Your task to perform on an android device: toggle notification dots Image 0: 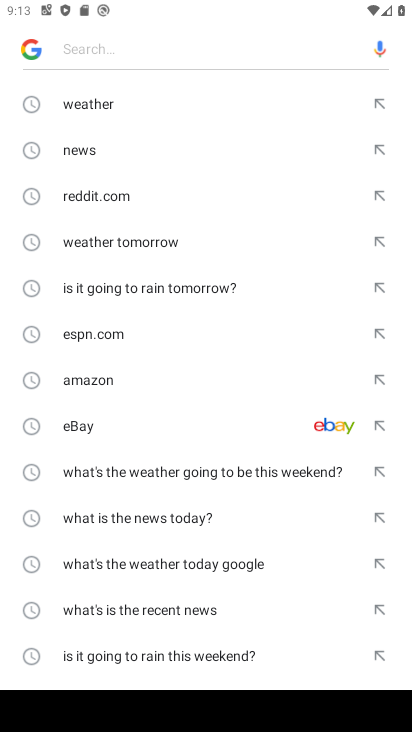
Step 0: press home button
Your task to perform on an android device: toggle notification dots Image 1: 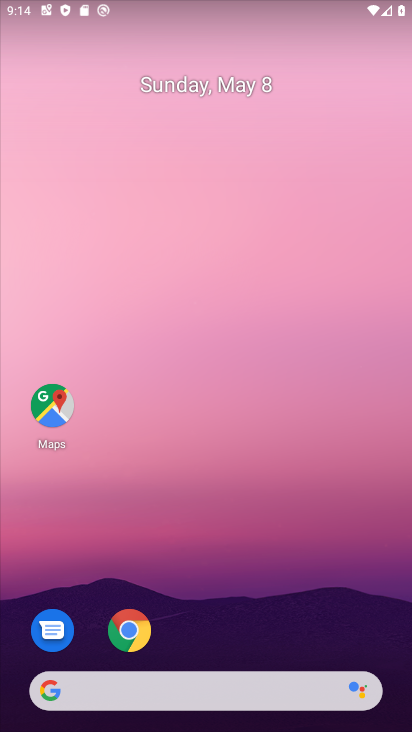
Step 1: drag from (147, 698) to (292, 276)
Your task to perform on an android device: toggle notification dots Image 2: 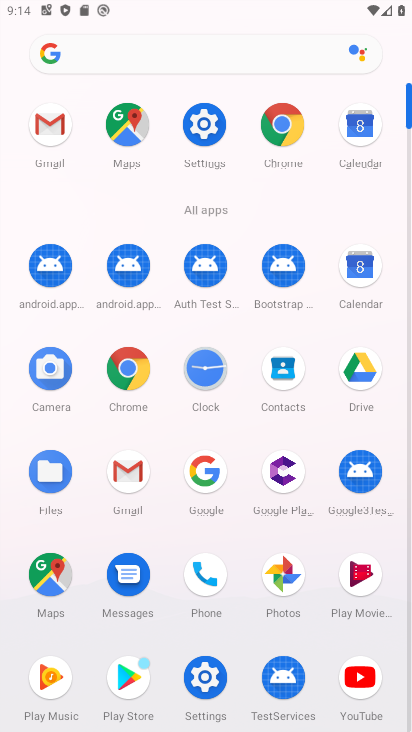
Step 2: click (203, 126)
Your task to perform on an android device: toggle notification dots Image 3: 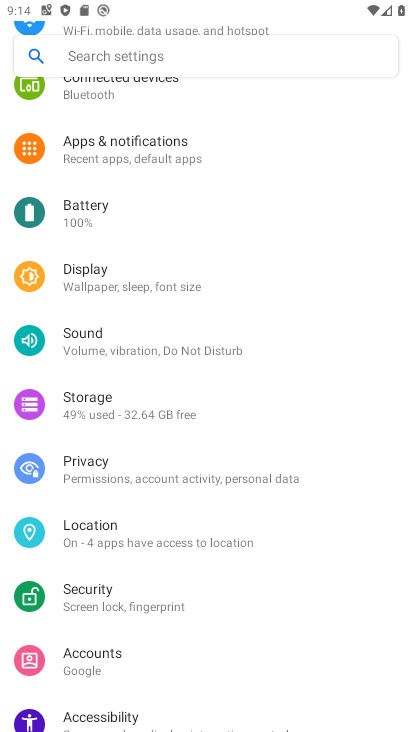
Step 3: click (169, 146)
Your task to perform on an android device: toggle notification dots Image 4: 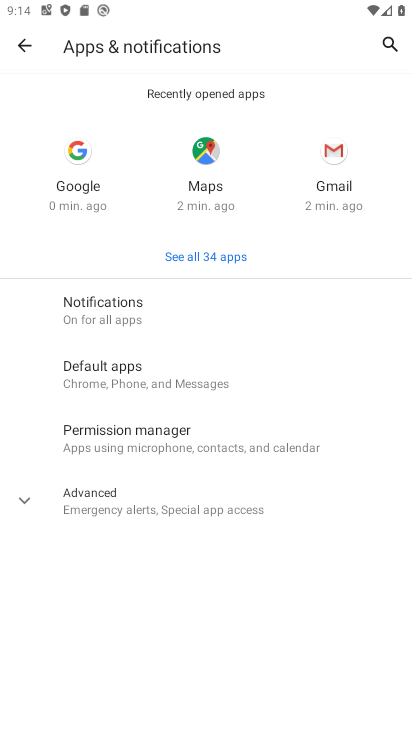
Step 4: click (130, 311)
Your task to perform on an android device: toggle notification dots Image 5: 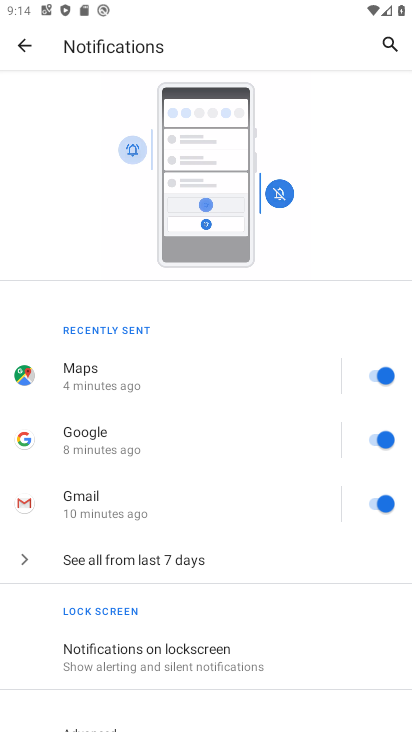
Step 5: drag from (198, 604) to (333, 252)
Your task to perform on an android device: toggle notification dots Image 6: 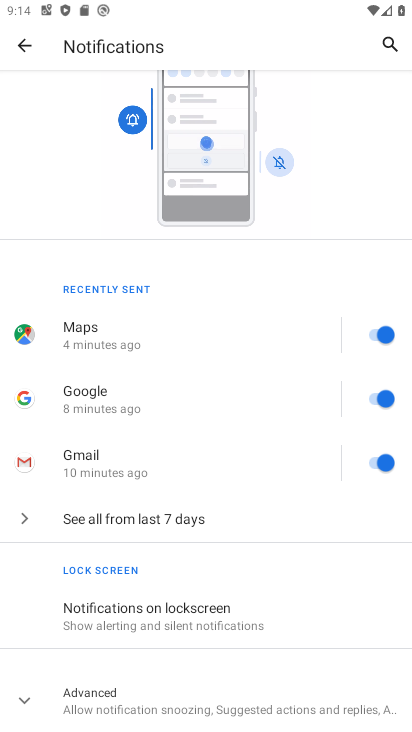
Step 6: click (111, 694)
Your task to perform on an android device: toggle notification dots Image 7: 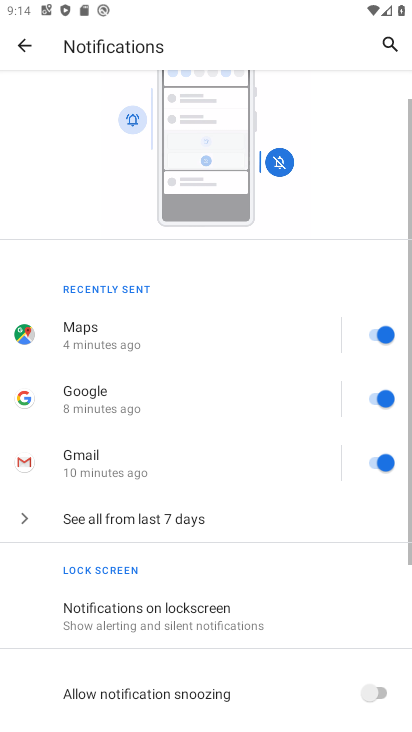
Step 7: drag from (146, 666) to (281, 318)
Your task to perform on an android device: toggle notification dots Image 8: 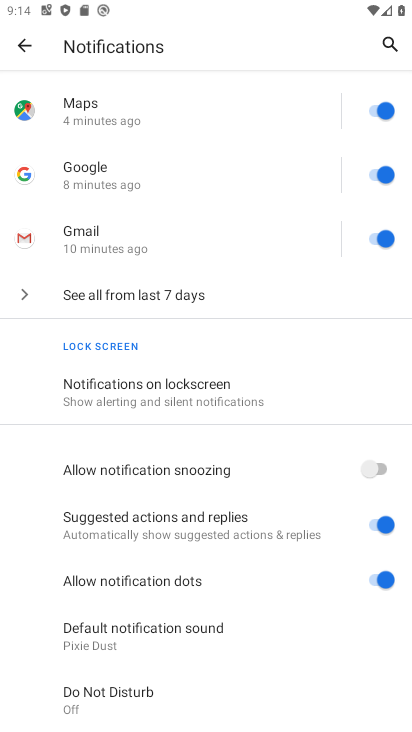
Step 8: click (377, 584)
Your task to perform on an android device: toggle notification dots Image 9: 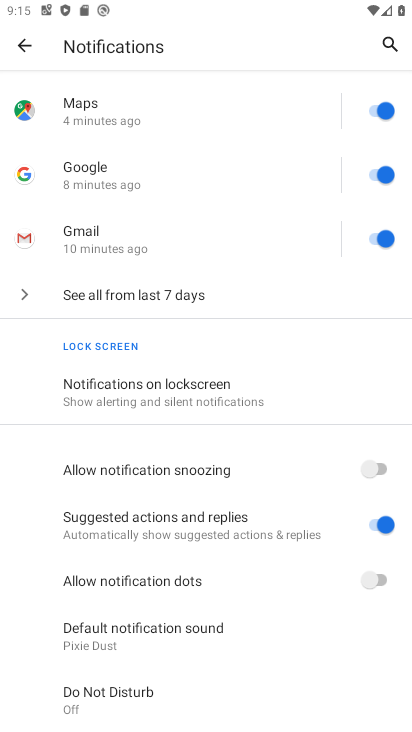
Step 9: task complete